Your task to perform on an android device: Open the map Image 0: 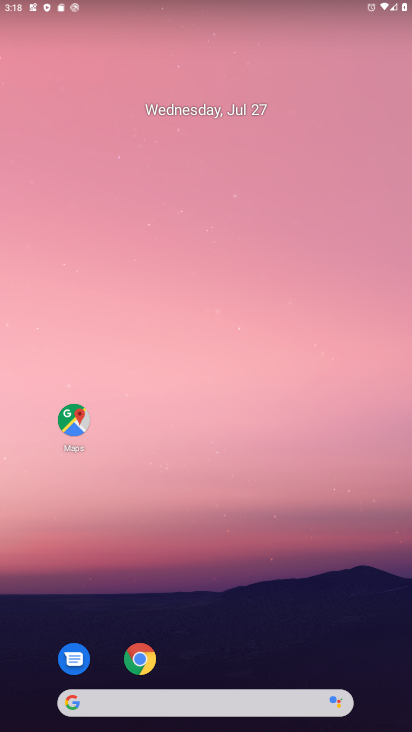
Step 0: drag from (209, 649) to (110, 72)
Your task to perform on an android device: Open the map Image 1: 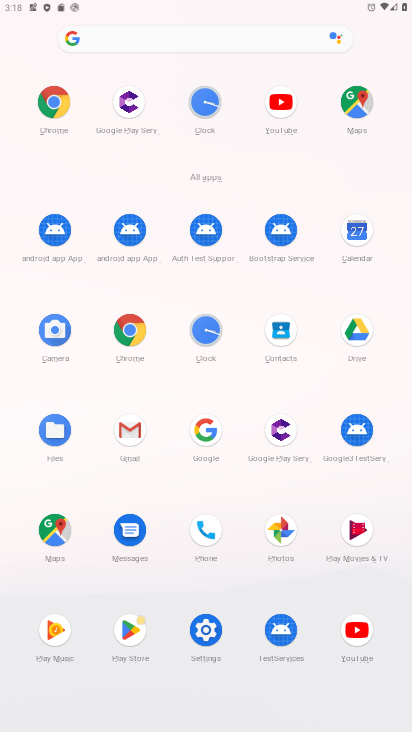
Step 1: click (362, 111)
Your task to perform on an android device: Open the map Image 2: 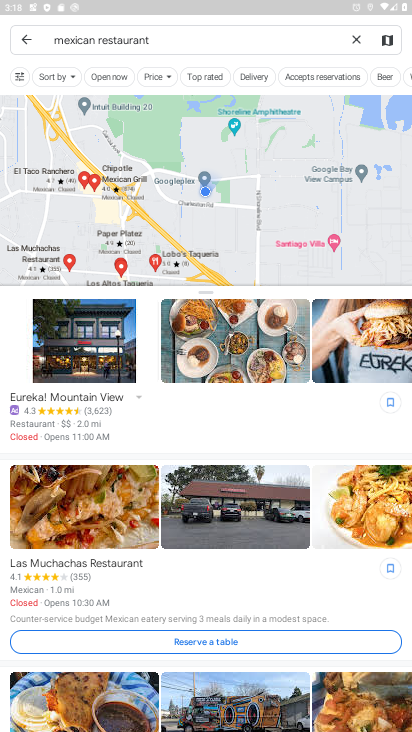
Step 2: task complete